Your task to perform on an android device: Check the weather Image 0: 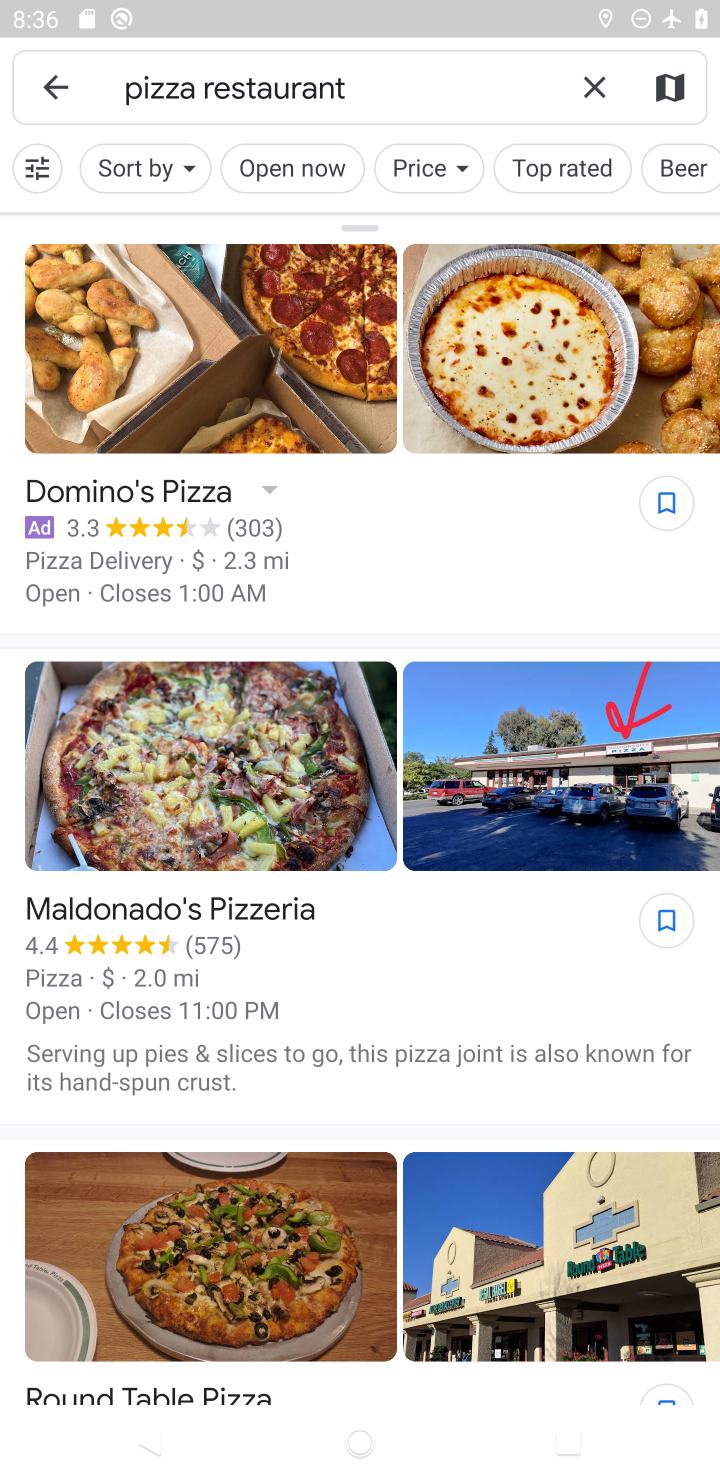
Step 0: press home button
Your task to perform on an android device: Check the weather Image 1: 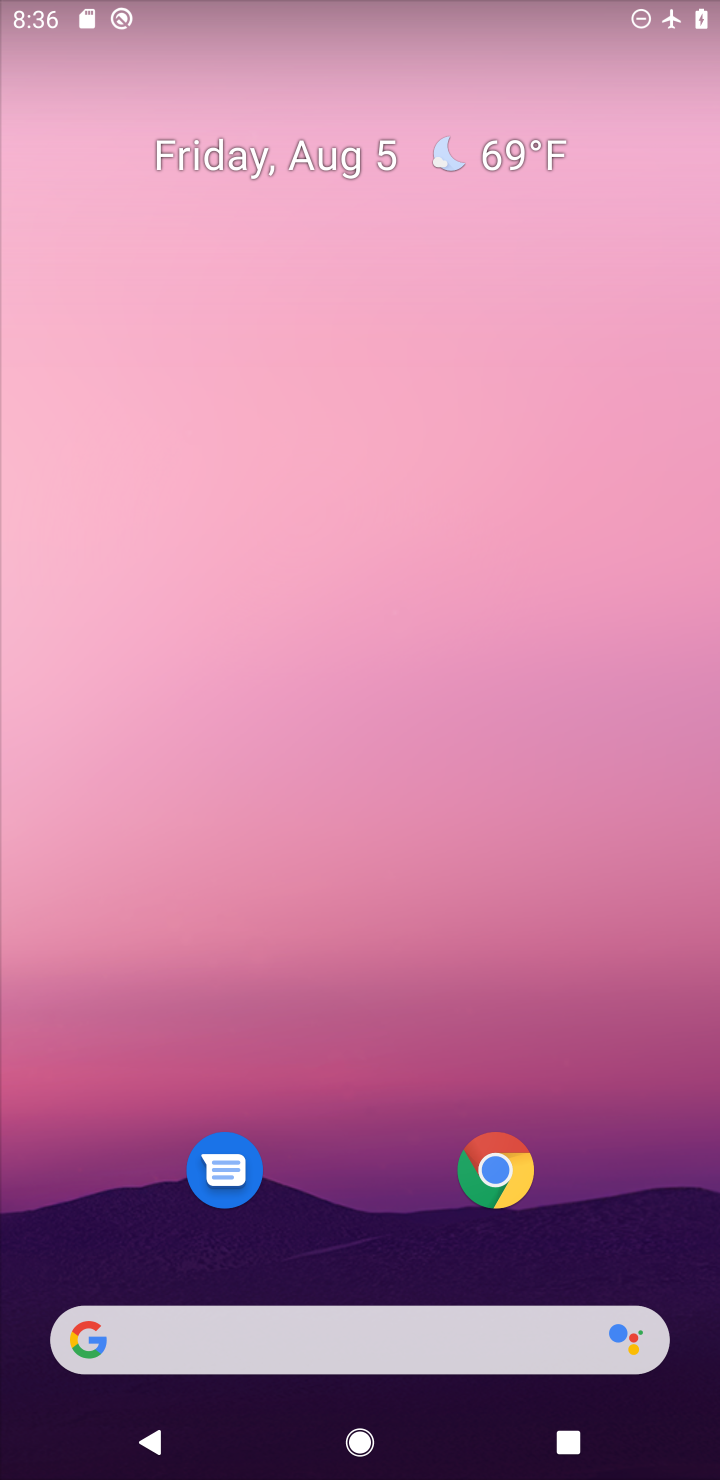
Step 1: click (489, 164)
Your task to perform on an android device: Check the weather Image 2: 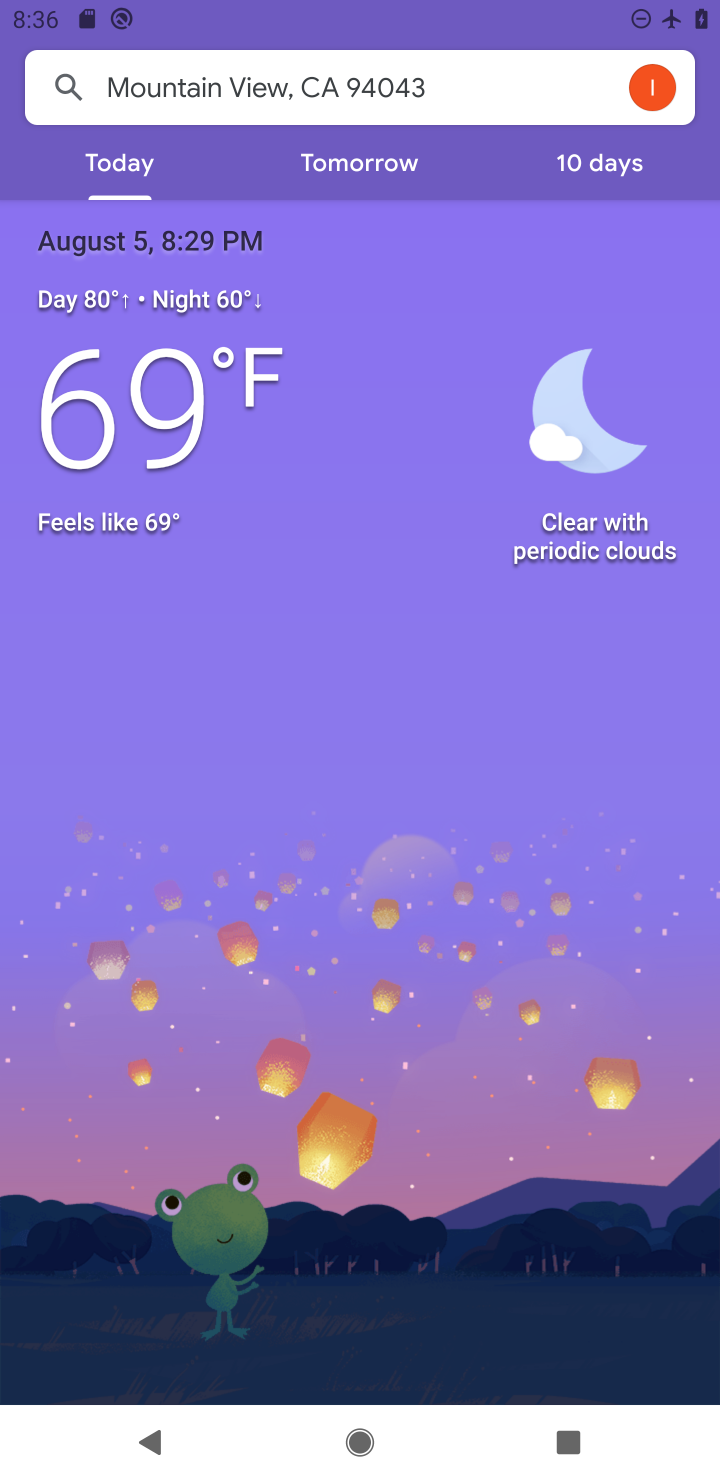
Step 2: task complete